Your task to perform on an android device: What's the weather today? Image 0: 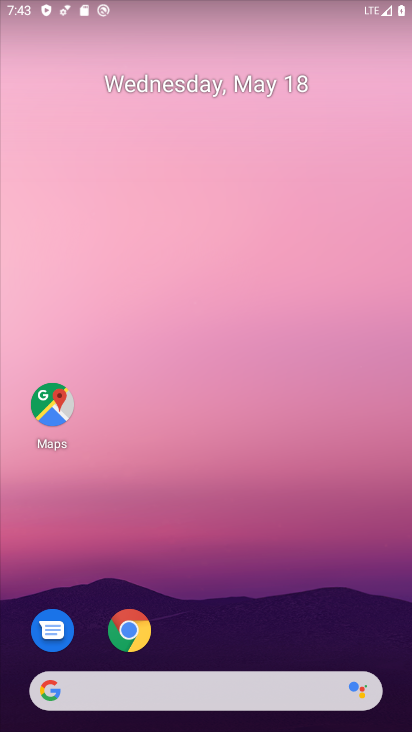
Step 0: drag from (295, 503) to (298, 185)
Your task to perform on an android device: What's the weather today? Image 1: 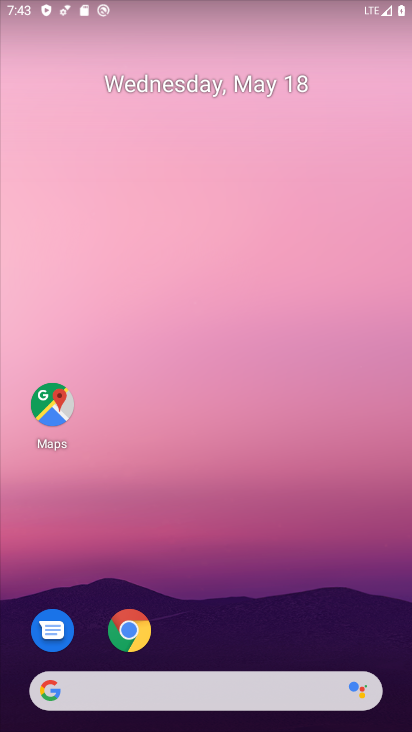
Step 1: drag from (272, 546) to (331, 247)
Your task to perform on an android device: What's the weather today? Image 2: 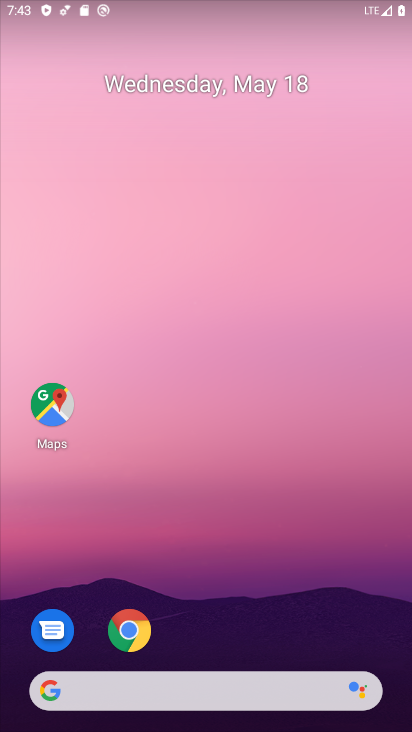
Step 2: drag from (349, 538) to (374, 243)
Your task to perform on an android device: What's the weather today? Image 3: 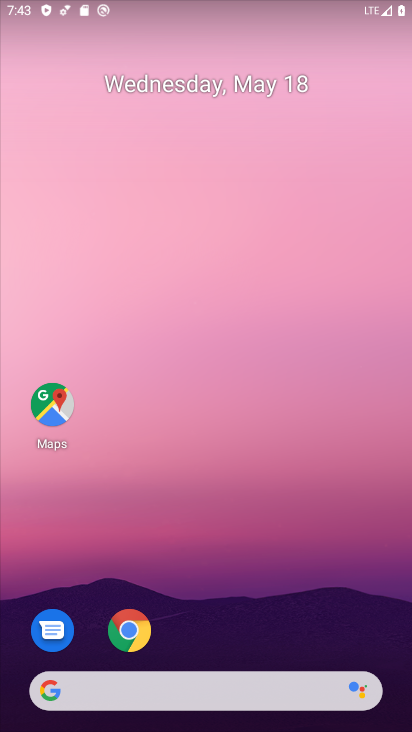
Step 3: click (40, 680)
Your task to perform on an android device: What's the weather today? Image 4: 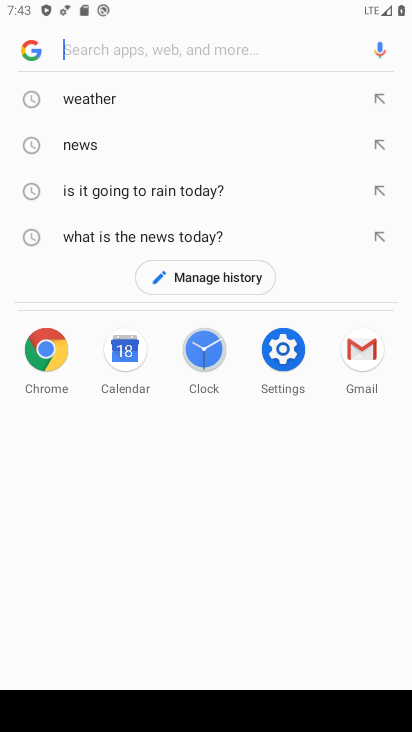
Step 4: click (35, 56)
Your task to perform on an android device: What's the weather today? Image 5: 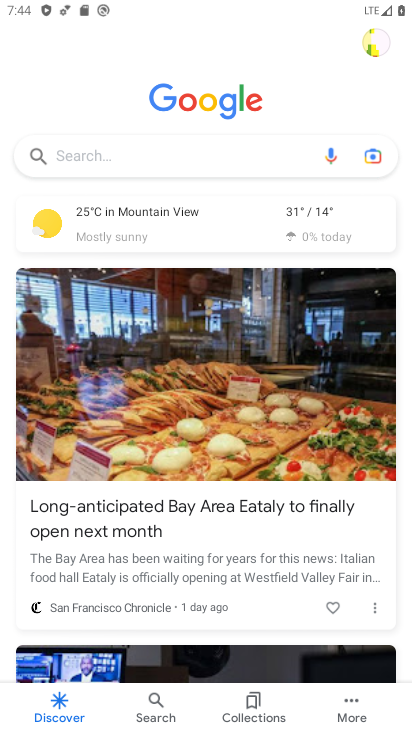
Step 5: click (122, 206)
Your task to perform on an android device: What's the weather today? Image 6: 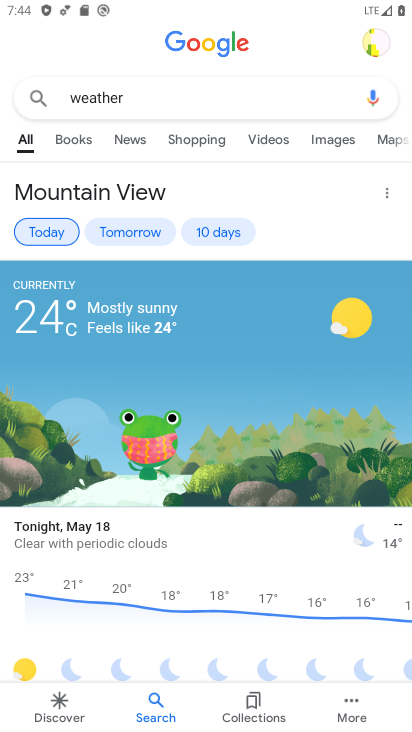
Step 6: task complete